Your task to perform on an android device: Show me popular videos on Youtube Image 0: 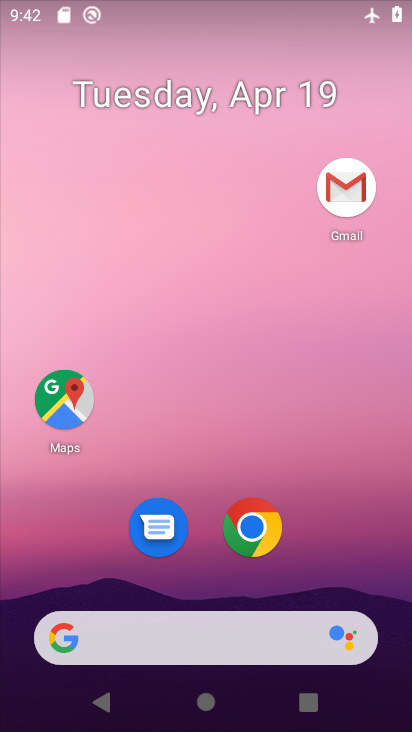
Step 0: drag from (359, 552) to (322, 142)
Your task to perform on an android device: Show me popular videos on Youtube Image 1: 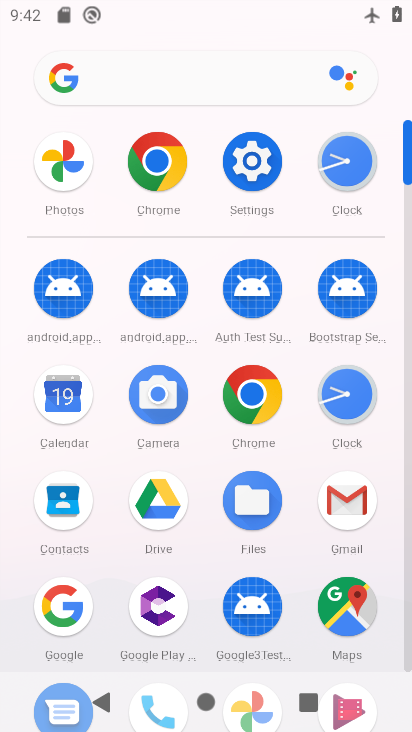
Step 1: drag from (292, 547) to (292, 218)
Your task to perform on an android device: Show me popular videos on Youtube Image 2: 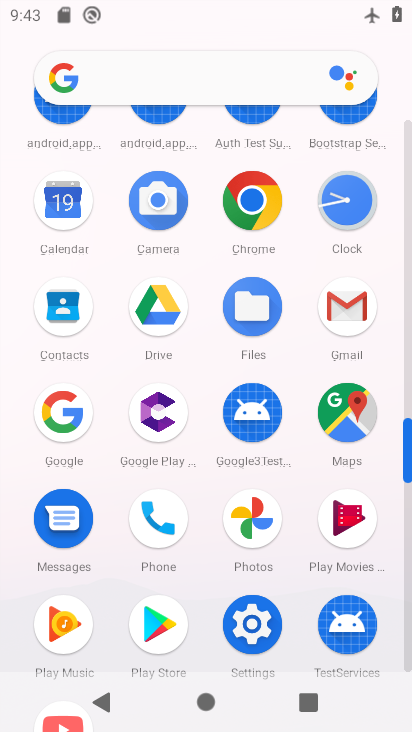
Step 2: drag from (291, 540) to (297, 272)
Your task to perform on an android device: Show me popular videos on Youtube Image 3: 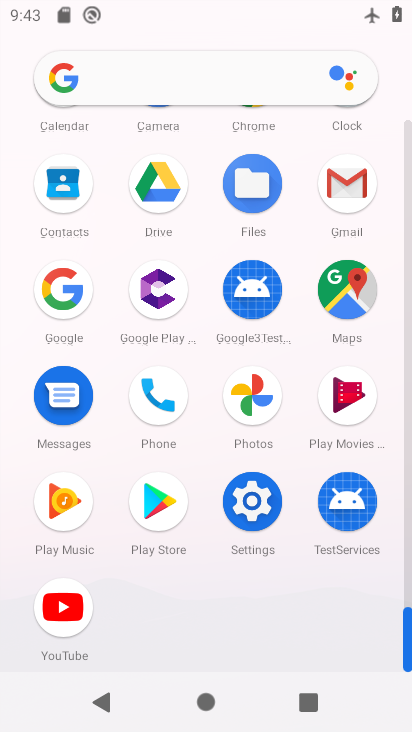
Step 3: click (68, 600)
Your task to perform on an android device: Show me popular videos on Youtube Image 4: 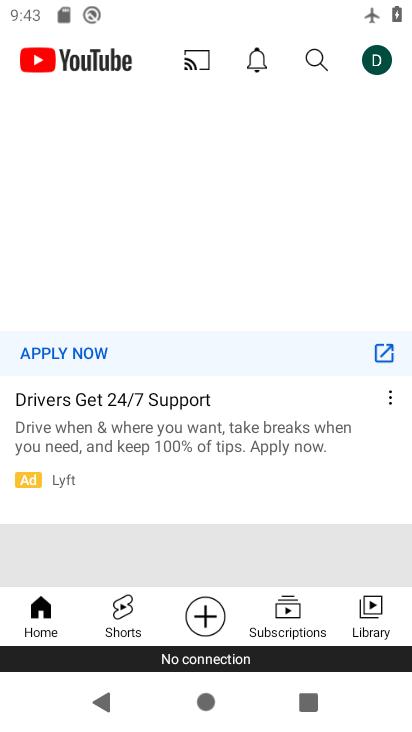
Step 4: click (386, 65)
Your task to perform on an android device: Show me popular videos on Youtube Image 5: 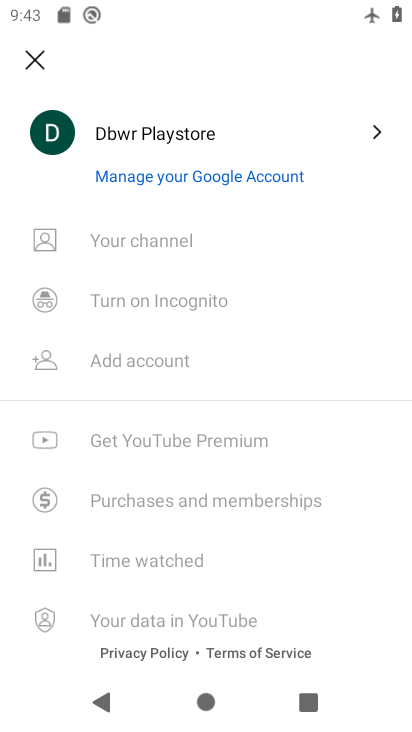
Step 5: click (31, 57)
Your task to perform on an android device: Show me popular videos on Youtube Image 6: 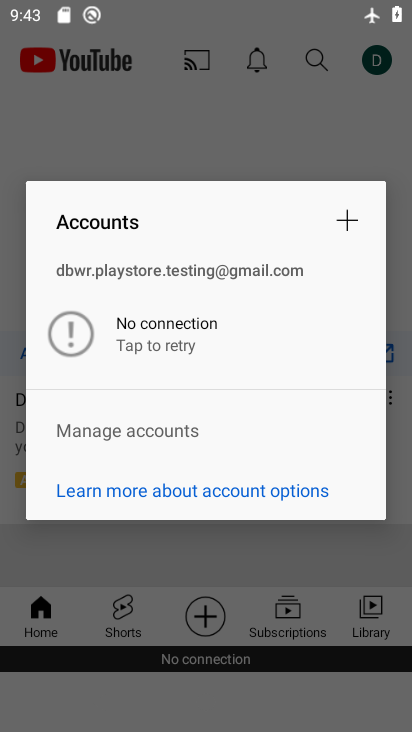
Step 6: click (387, 624)
Your task to perform on an android device: Show me popular videos on Youtube Image 7: 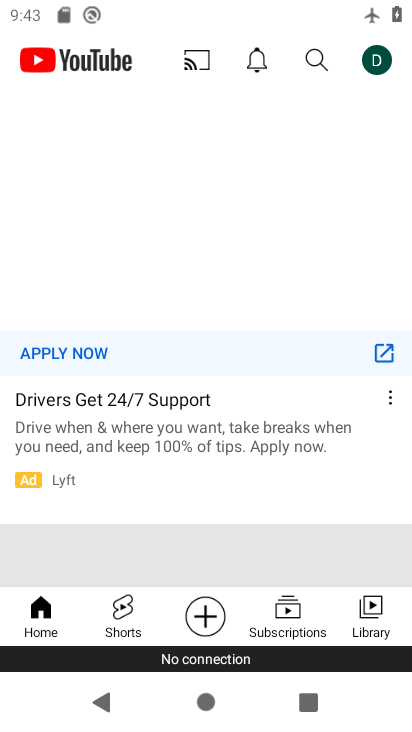
Step 7: click (373, 614)
Your task to perform on an android device: Show me popular videos on Youtube Image 8: 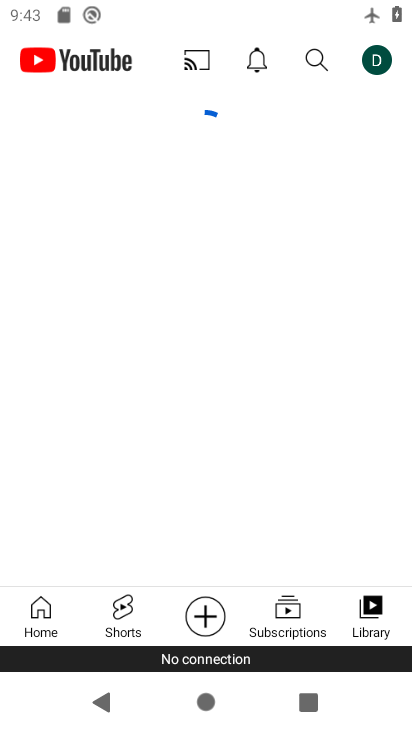
Step 8: task complete